Your task to perform on an android device: What's the weather going to be tomorrow? Image 0: 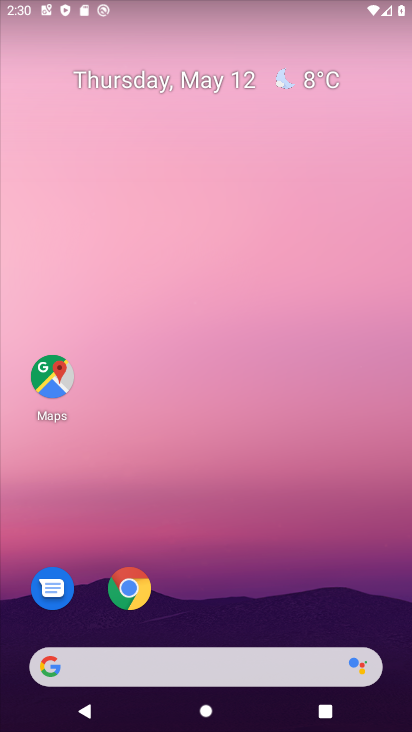
Step 0: drag from (221, 521) to (221, 1)
Your task to perform on an android device: What's the weather going to be tomorrow? Image 1: 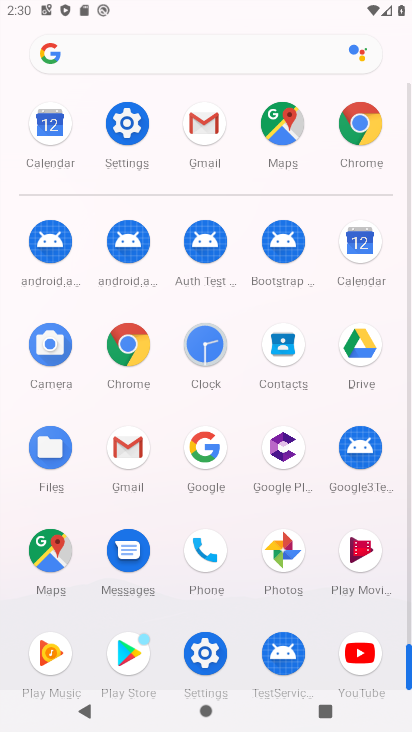
Step 1: drag from (15, 532) to (37, 220)
Your task to perform on an android device: What's the weather going to be tomorrow? Image 2: 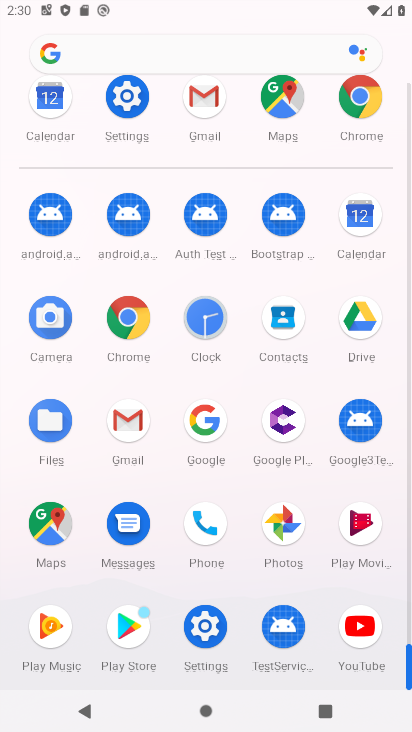
Step 2: click (120, 315)
Your task to perform on an android device: What's the weather going to be tomorrow? Image 3: 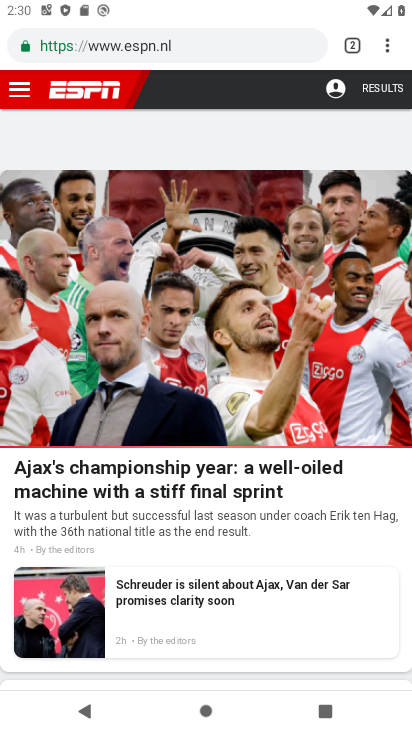
Step 3: click (147, 39)
Your task to perform on an android device: What's the weather going to be tomorrow? Image 4: 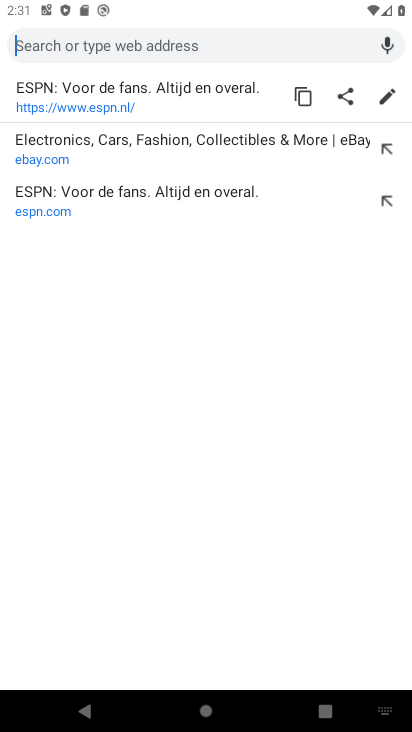
Step 4: type "What's the weather going to be tomorrow?"
Your task to perform on an android device: What's the weather going to be tomorrow? Image 5: 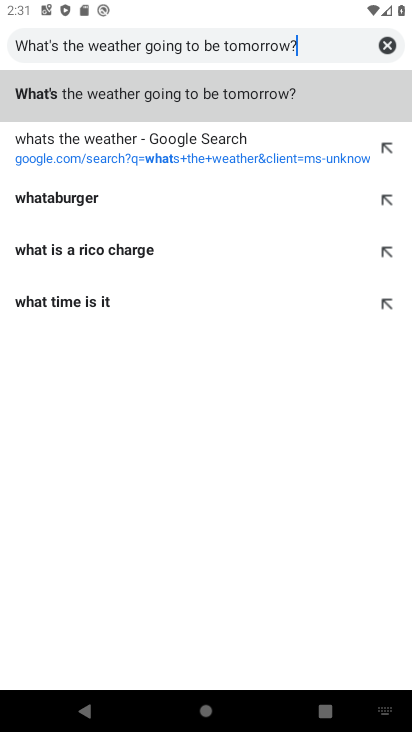
Step 5: type ""
Your task to perform on an android device: What's the weather going to be tomorrow? Image 6: 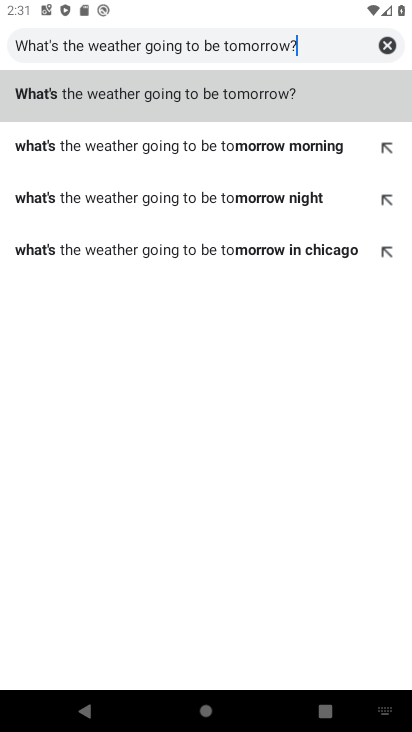
Step 6: click (133, 102)
Your task to perform on an android device: What's the weather going to be tomorrow? Image 7: 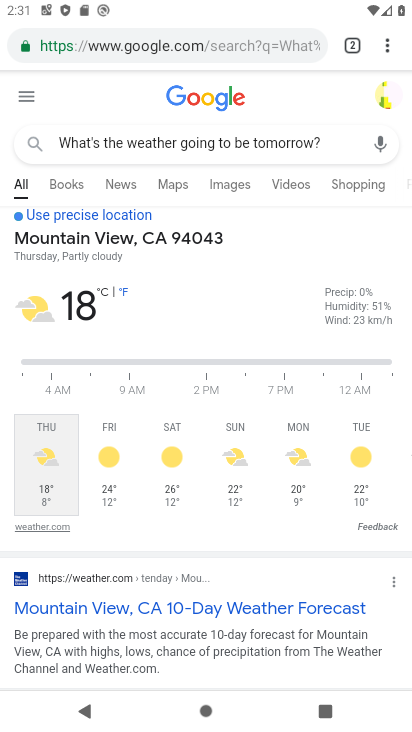
Step 7: task complete